Your task to perform on an android device: Go to Amazon Image 0: 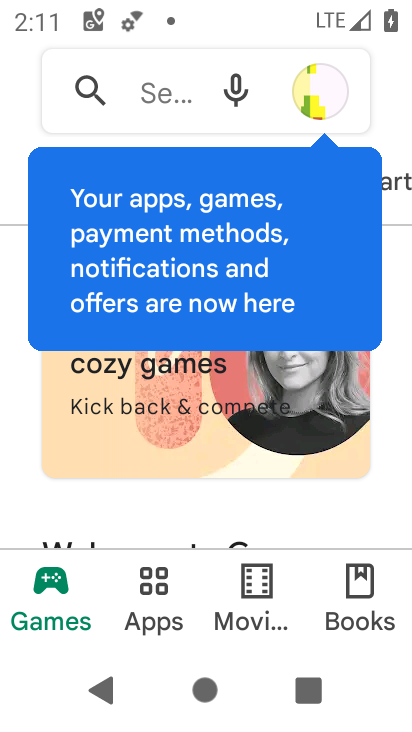
Step 0: press home button
Your task to perform on an android device: Go to Amazon Image 1: 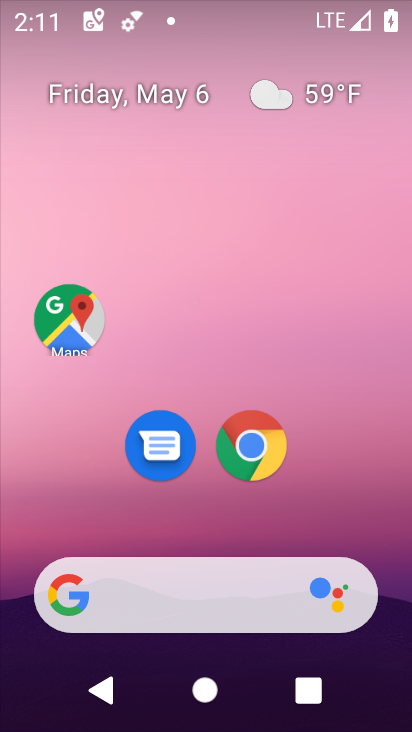
Step 1: click (253, 446)
Your task to perform on an android device: Go to Amazon Image 2: 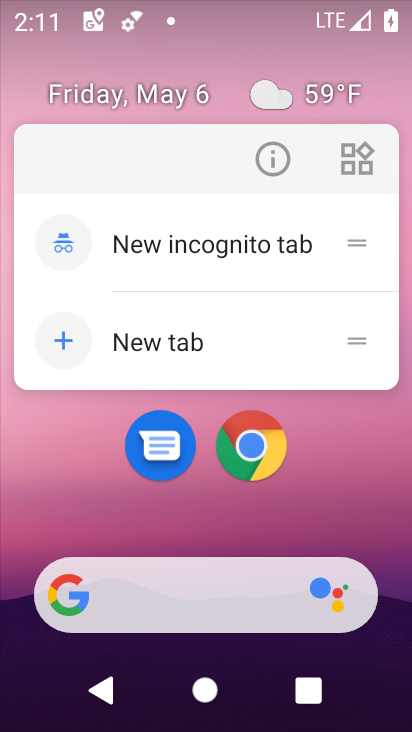
Step 2: click (251, 441)
Your task to perform on an android device: Go to Amazon Image 3: 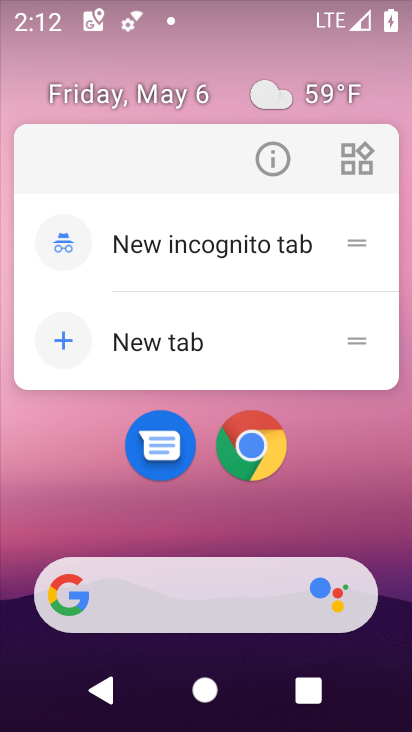
Step 3: click (249, 439)
Your task to perform on an android device: Go to Amazon Image 4: 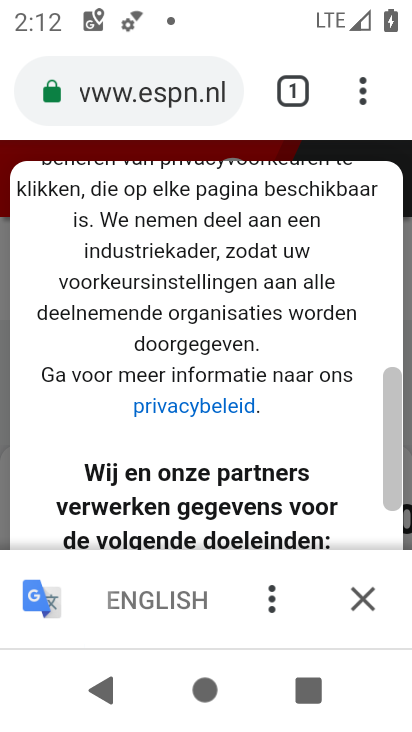
Step 4: click (120, 84)
Your task to perform on an android device: Go to Amazon Image 5: 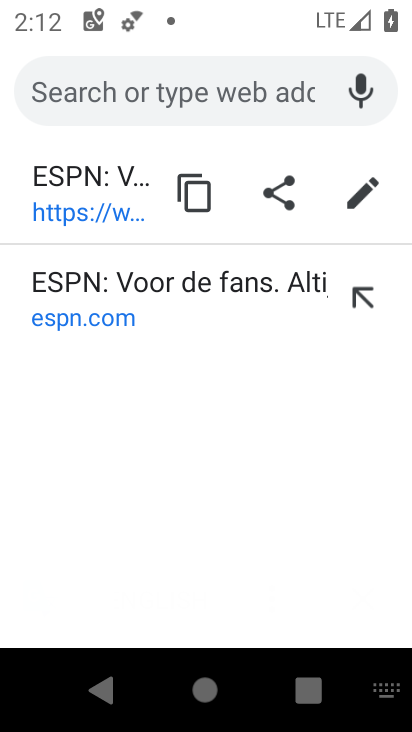
Step 5: type "amazon"
Your task to perform on an android device: Go to Amazon Image 6: 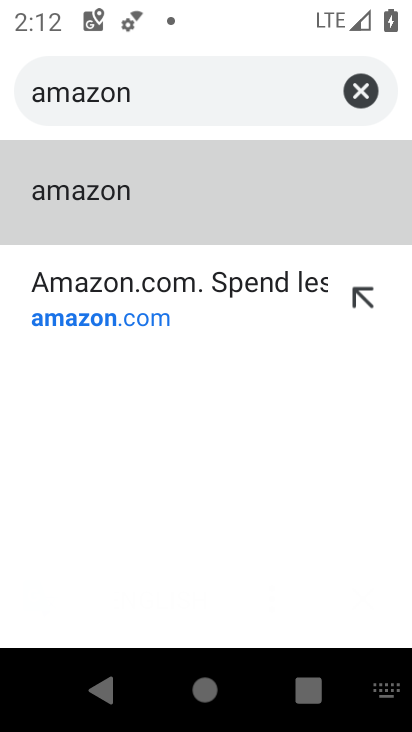
Step 6: click (61, 206)
Your task to perform on an android device: Go to Amazon Image 7: 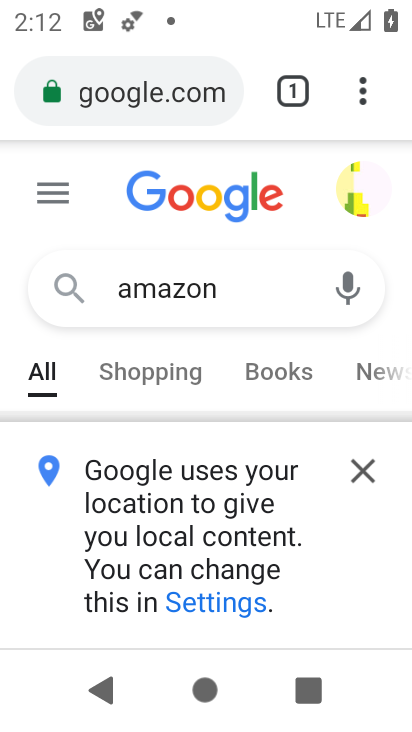
Step 7: drag from (219, 244) to (258, 30)
Your task to perform on an android device: Go to Amazon Image 8: 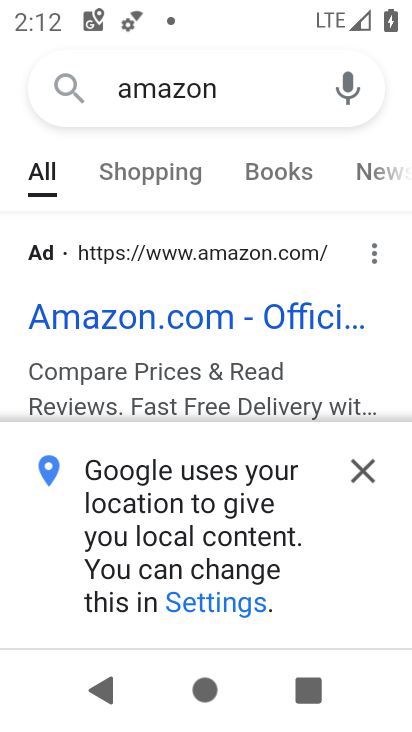
Step 8: drag from (218, 362) to (237, 143)
Your task to perform on an android device: Go to Amazon Image 9: 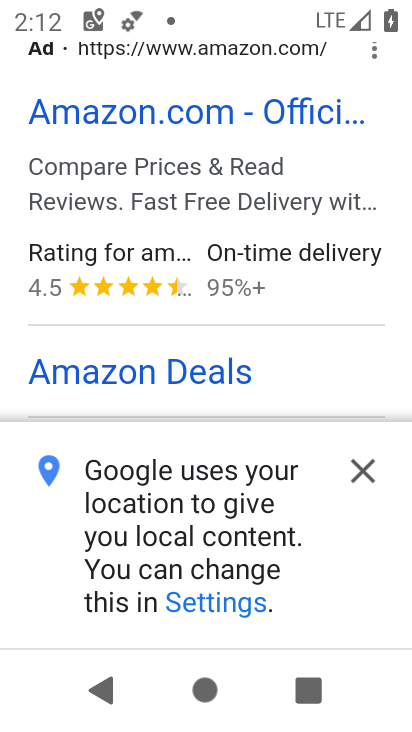
Step 9: click (146, 120)
Your task to perform on an android device: Go to Amazon Image 10: 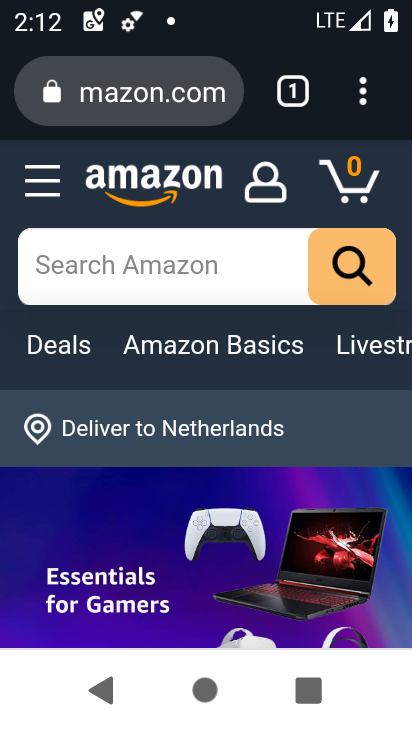
Step 10: task complete